Your task to perform on an android device: delete browsing data in the chrome app Image 0: 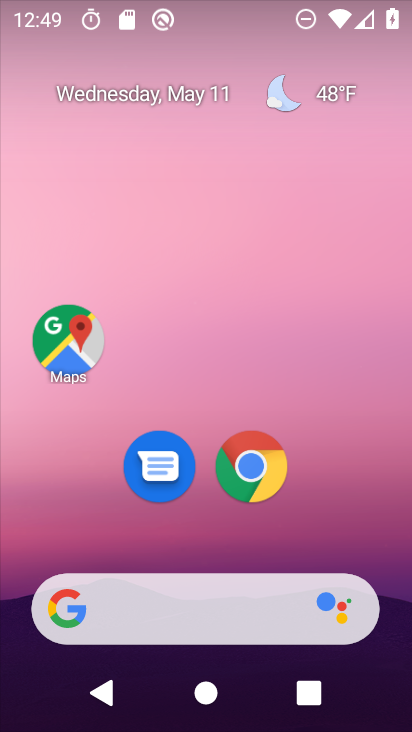
Step 0: click (244, 460)
Your task to perform on an android device: delete browsing data in the chrome app Image 1: 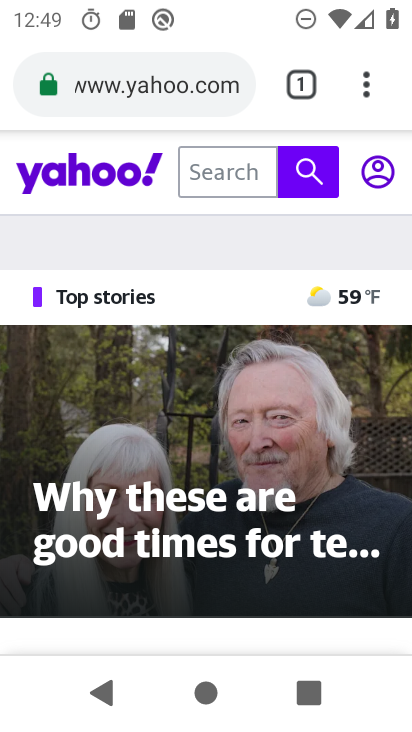
Step 1: click (369, 77)
Your task to perform on an android device: delete browsing data in the chrome app Image 2: 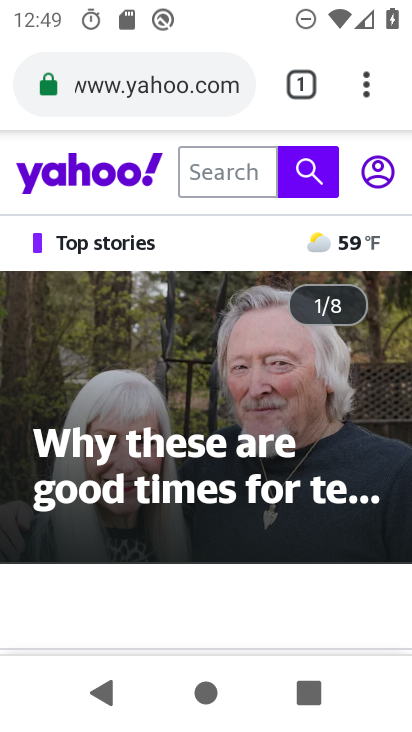
Step 2: click (369, 84)
Your task to perform on an android device: delete browsing data in the chrome app Image 3: 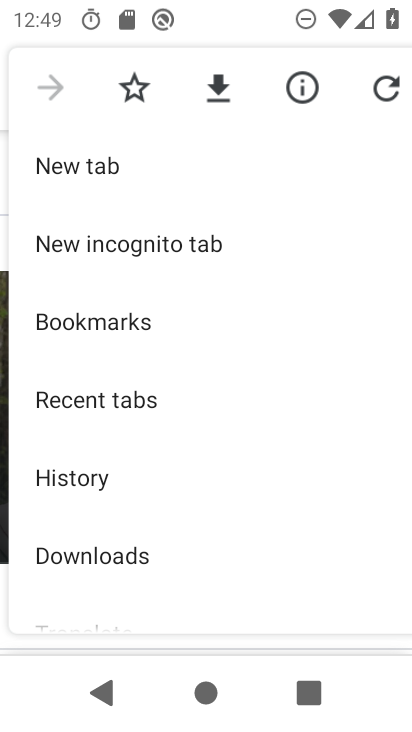
Step 3: click (126, 478)
Your task to perform on an android device: delete browsing data in the chrome app Image 4: 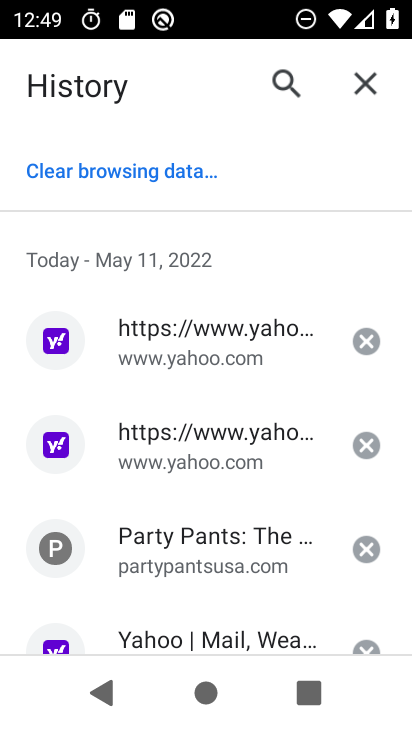
Step 4: click (142, 166)
Your task to perform on an android device: delete browsing data in the chrome app Image 5: 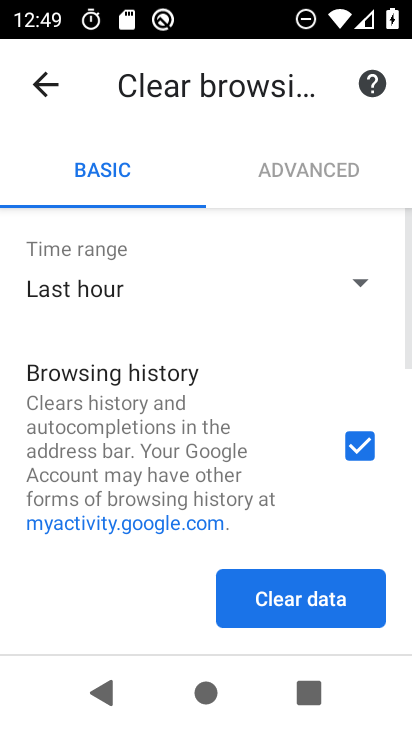
Step 5: drag from (243, 480) to (245, 202)
Your task to perform on an android device: delete browsing data in the chrome app Image 6: 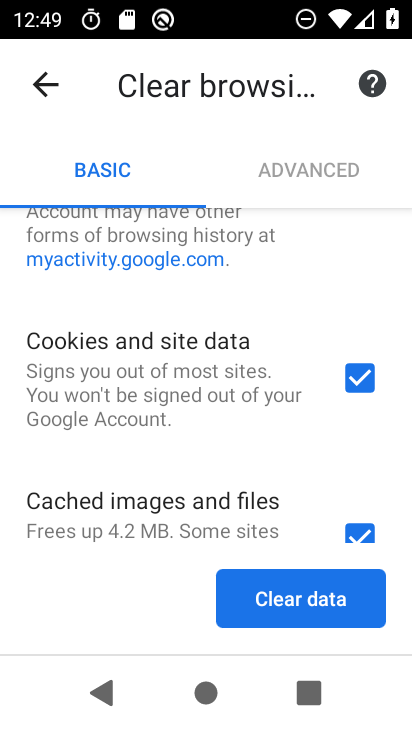
Step 6: click (304, 608)
Your task to perform on an android device: delete browsing data in the chrome app Image 7: 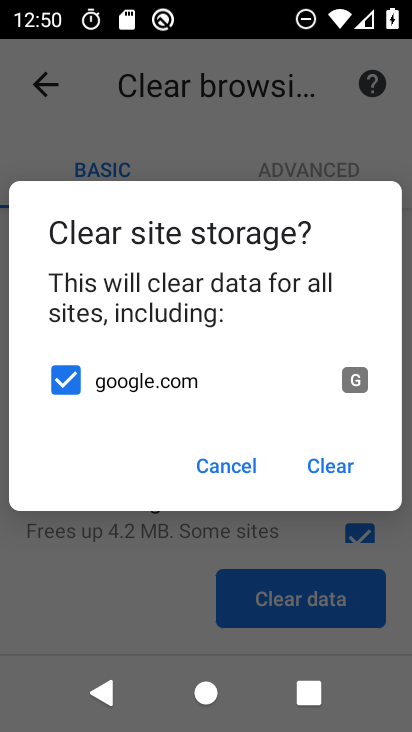
Step 7: click (335, 469)
Your task to perform on an android device: delete browsing data in the chrome app Image 8: 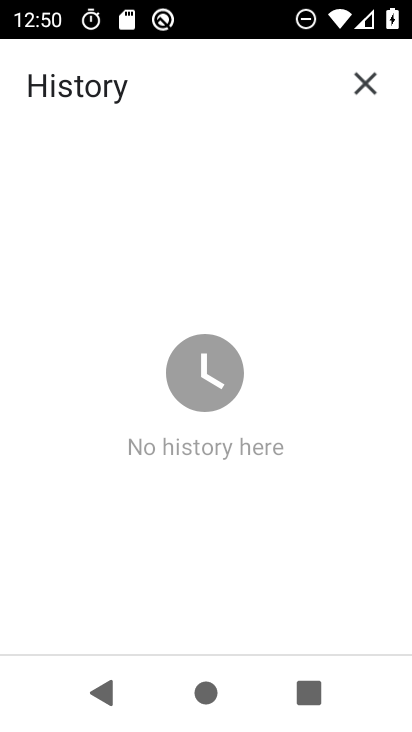
Step 8: task complete